Your task to perform on an android device: Go to privacy settings Image 0: 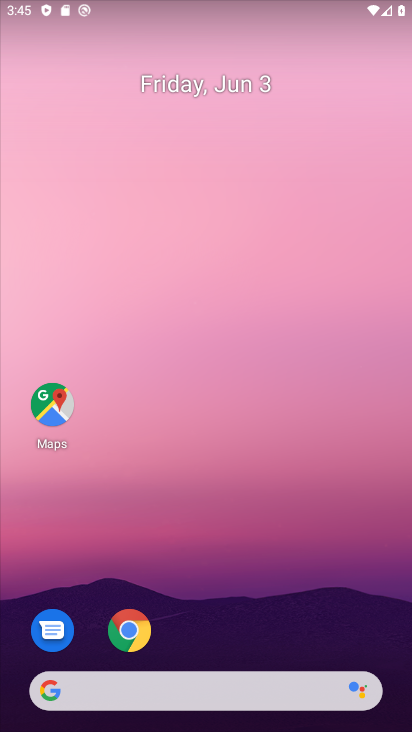
Step 0: drag from (255, 641) to (231, 151)
Your task to perform on an android device: Go to privacy settings Image 1: 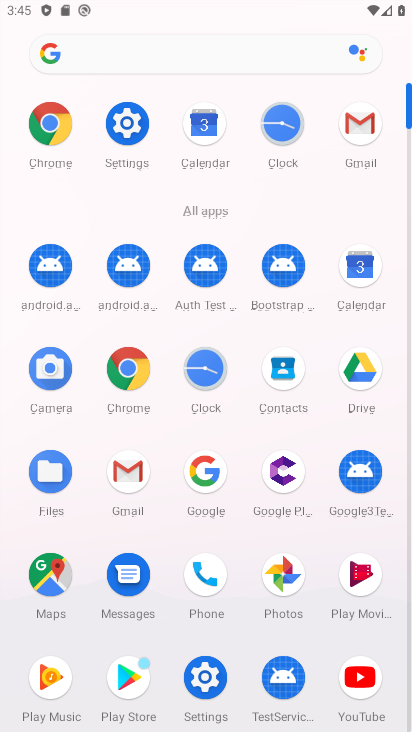
Step 1: click (200, 671)
Your task to perform on an android device: Go to privacy settings Image 2: 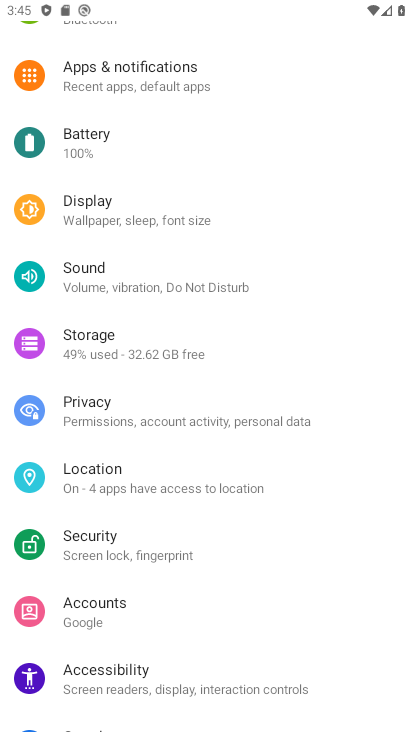
Step 2: click (131, 417)
Your task to perform on an android device: Go to privacy settings Image 3: 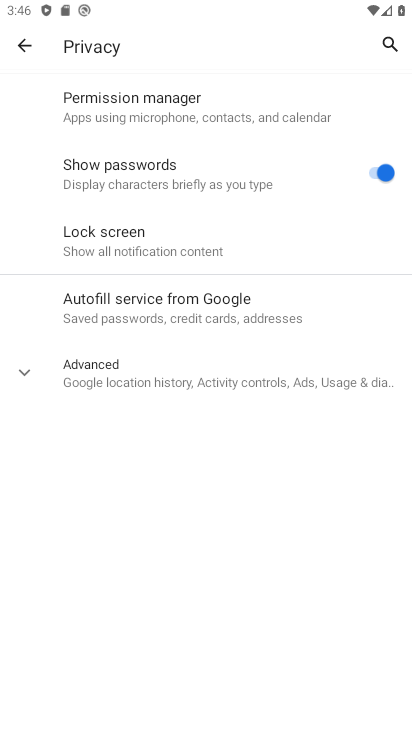
Step 3: task complete